Your task to perform on an android device: delete browsing data in the chrome app Image 0: 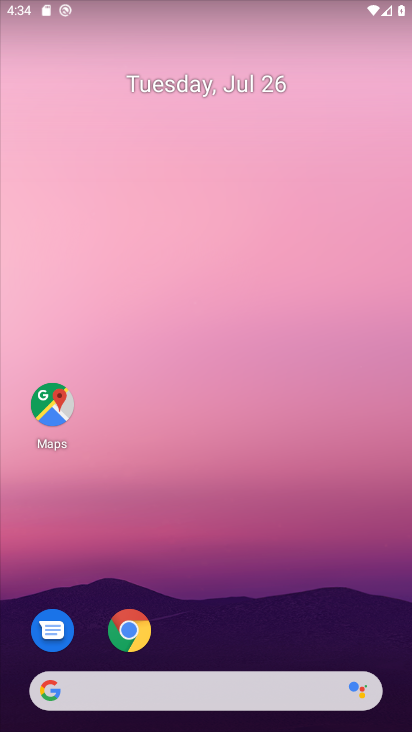
Step 0: click (209, 160)
Your task to perform on an android device: delete browsing data in the chrome app Image 1: 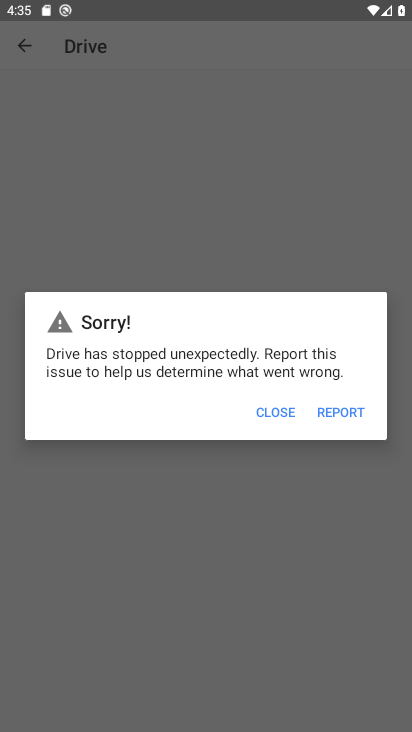
Step 1: press home button
Your task to perform on an android device: delete browsing data in the chrome app Image 2: 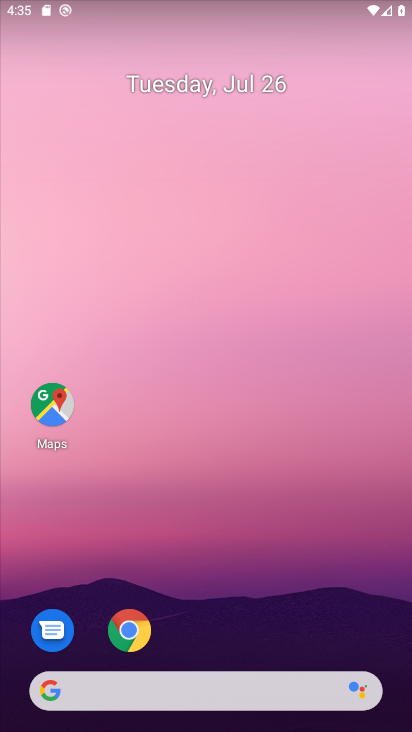
Step 2: click (127, 632)
Your task to perform on an android device: delete browsing data in the chrome app Image 3: 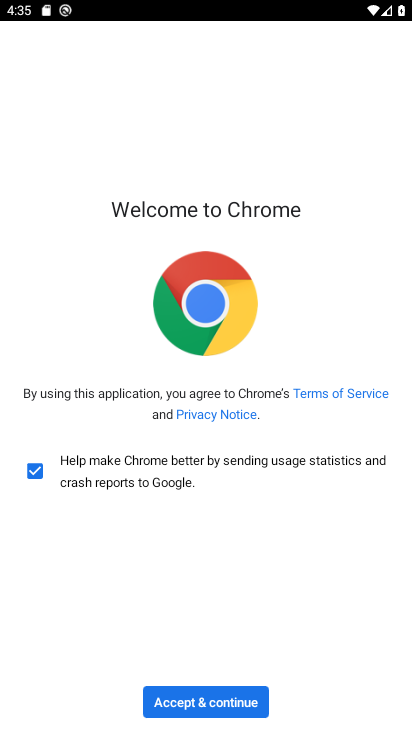
Step 3: click (230, 700)
Your task to perform on an android device: delete browsing data in the chrome app Image 4: 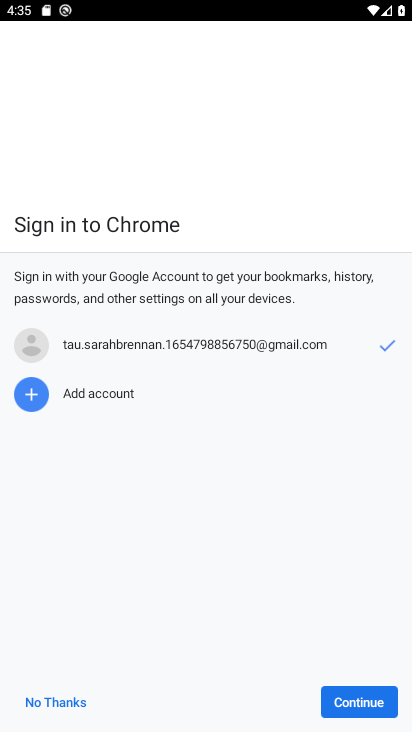
Step 4: click (364, 706)
Your task to perform on an android device: delete browsing data in the chrome app Image 5: 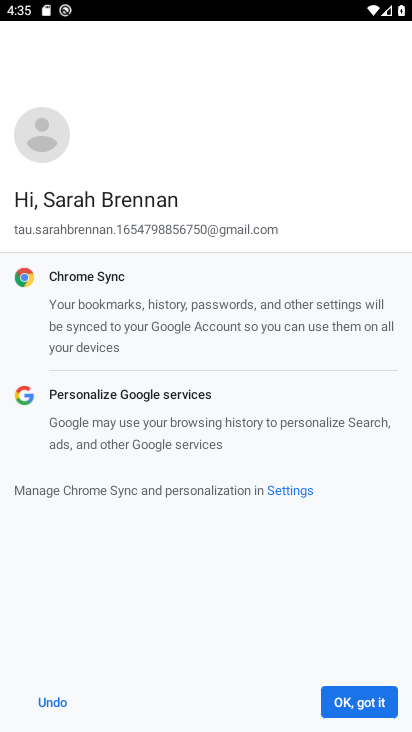
Step 5: click (354, 699)
Your task to perform on an android device: delete browsing data in the chrome app Image 6: 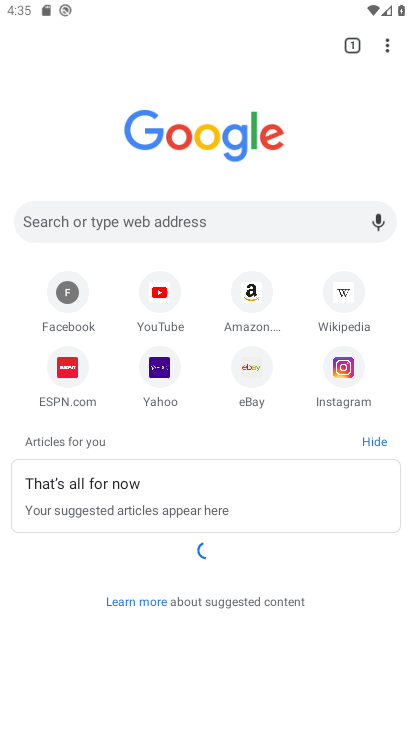
Step 6: click (388, 47)
Your task to perform on an android device: delete browsing data in the chrome app Image 7: 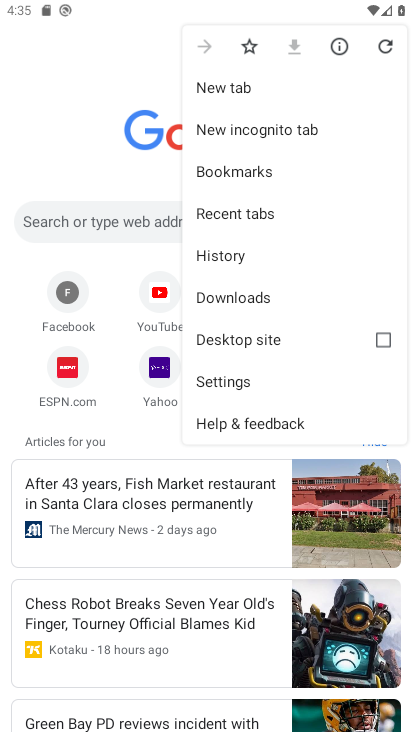
Step 7: click (279, 244)
Your task to perform on an android device: delete browsing data in the chrome app Image 8: 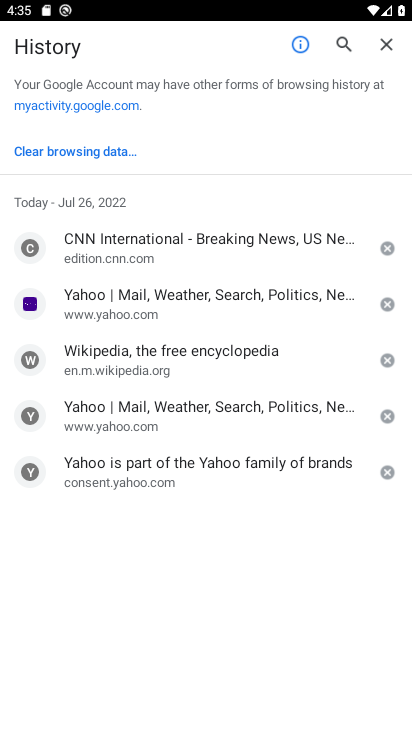
Step 8: click (101, 153)
Your task to perform on an android device: delete browsing data in the chrome app Image 9: 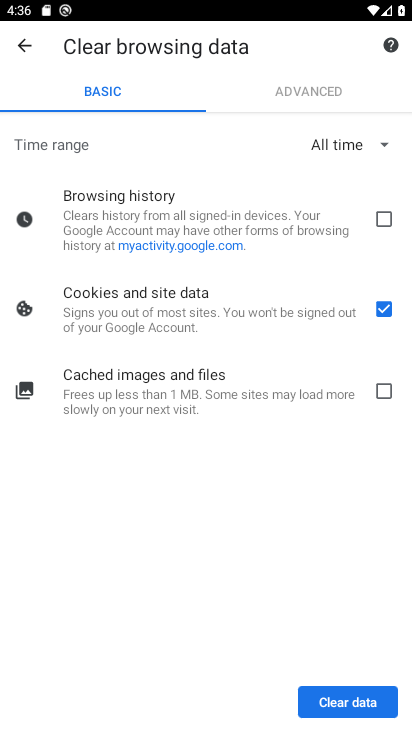
Step 9: click (384, 206)
Your task to perform on an android device: delete browsing data in the chrome app Image 10: 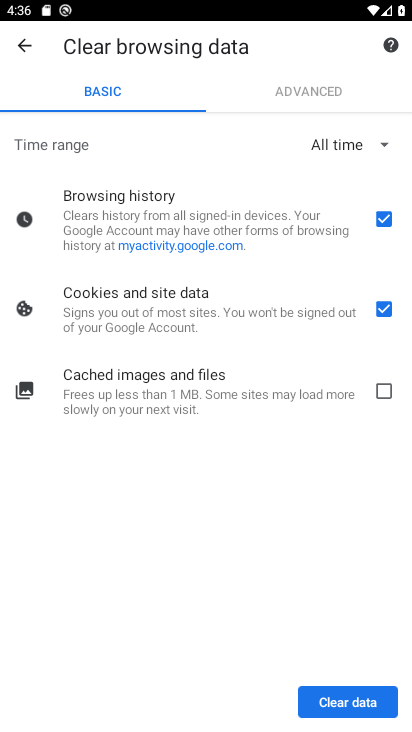
Step 10: click (381, 396)
Your task to perform on an android device: delete browsing data in the chrome app Image 11: 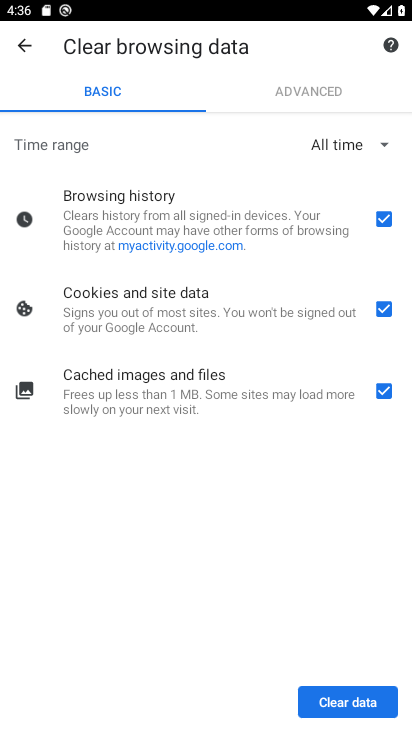
Step 11: click (343, 697)
Your task to perform on an android device: delete browsing data in the chrome app Image 12: 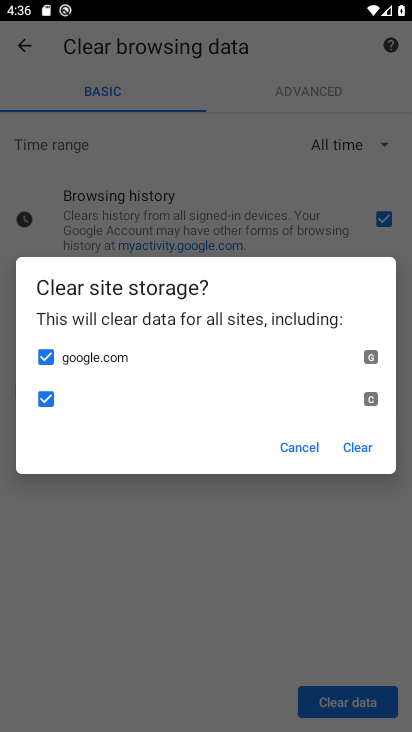
Step 12: click (361, 444)
Your task to perform on an android device: delete browsing data in the chrome app Image 13: 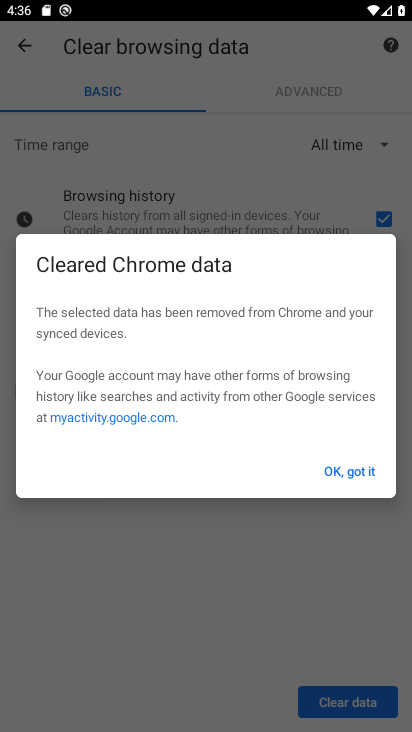
Step 13: click (363, 469)
Your task to perform on an android device: delete browsing data in the chrome app Image 14: 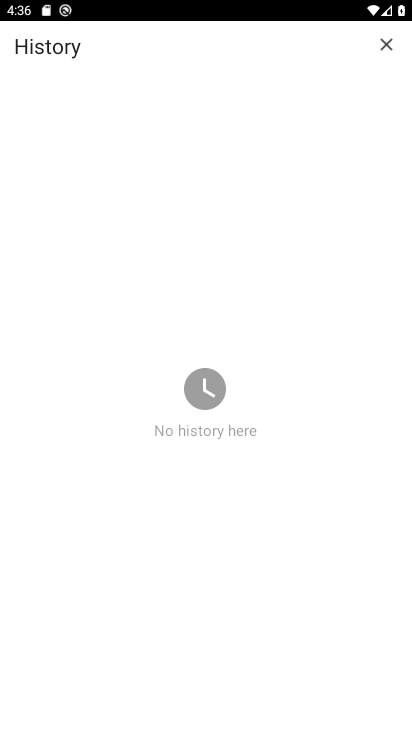
Step 14: task complete